Your task to perform on an android device: Go to notification settings Image 0: 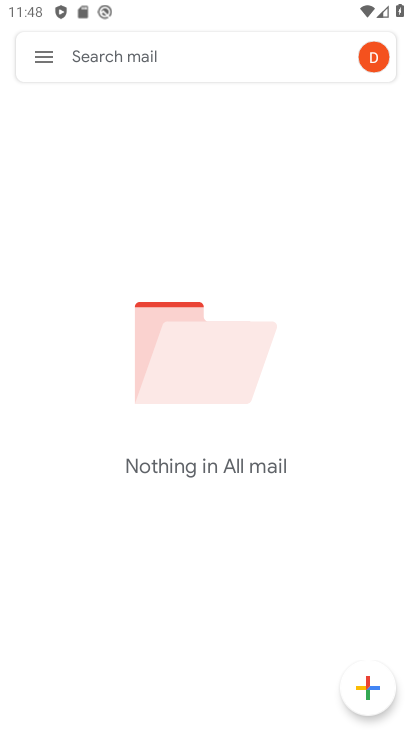
Step 0: press back button
Your task to perform on an android device: Go to notification settings Image 1: 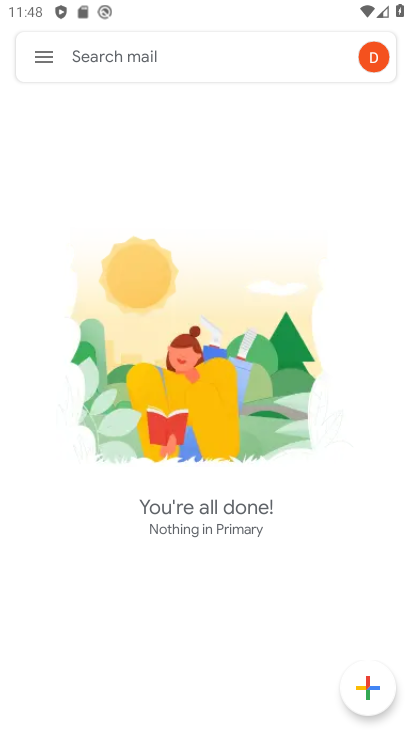
Step 1: press back button
Your task to perform on an android device: Go to notification settings Image 2: 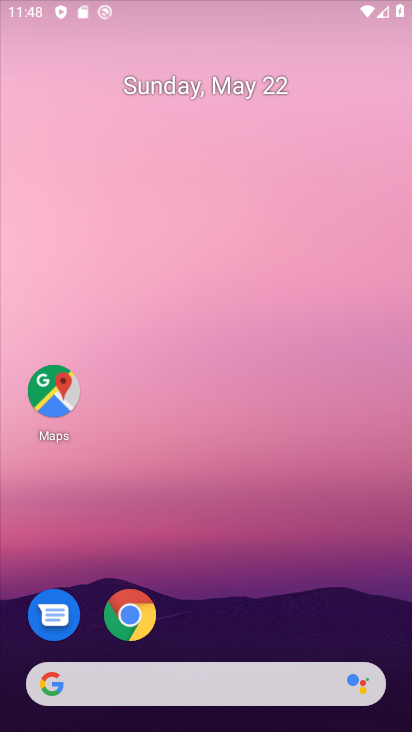
Step 2: drag from (309, 603) to (375, 62)
Your task to perform on an android device: Go to notification settings Image 3: 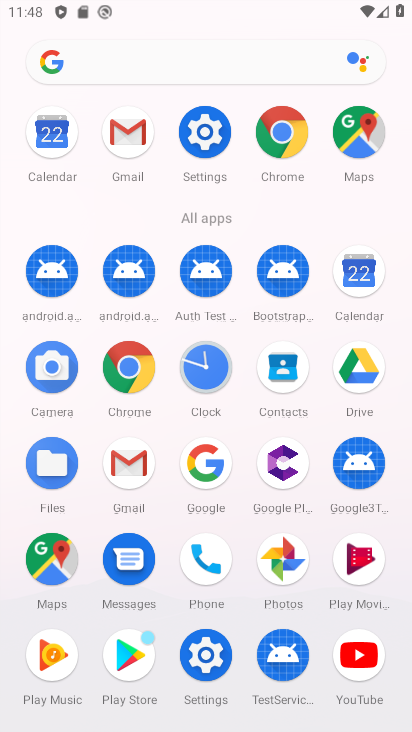
Step 3: click (207, 135)
Your task to perform on an android device: Go to notification settings Image 4: 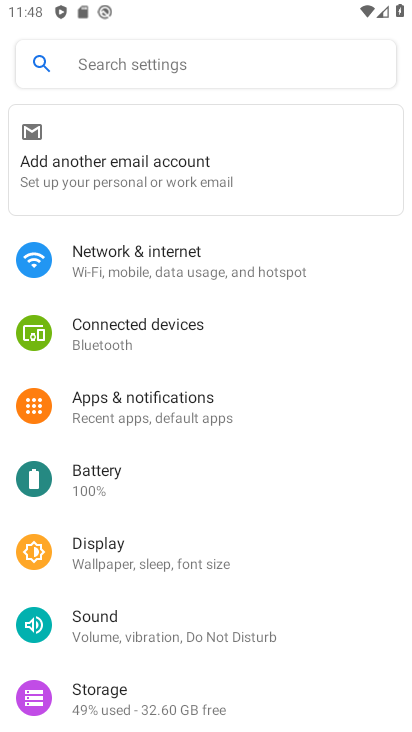
Step 4: click (199, 409)
Your task to perform on an android device: Go to notification settings Image 5: 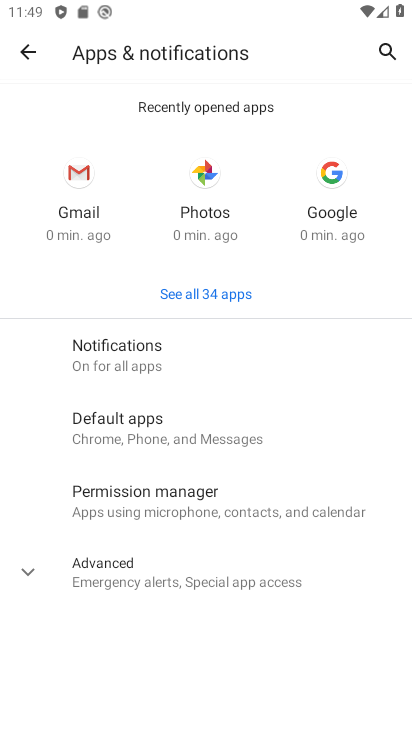
Step 5: task complete